Your task to perform on an android device: Open the map Image 0: 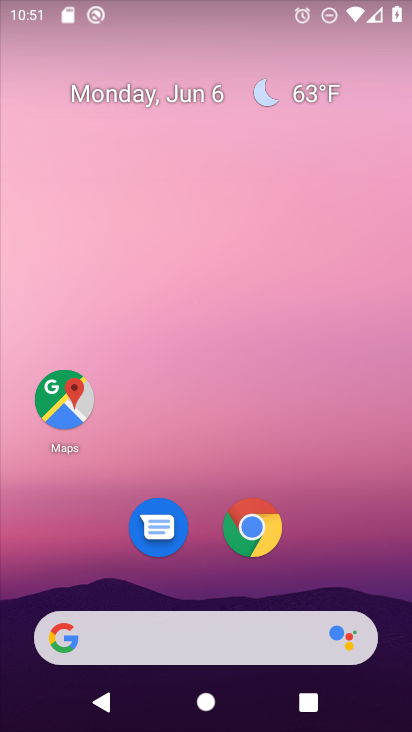
Step 0: drag from (362, 529) to (384, 70)
Your task to perform on an android device: Open the map Image 1: 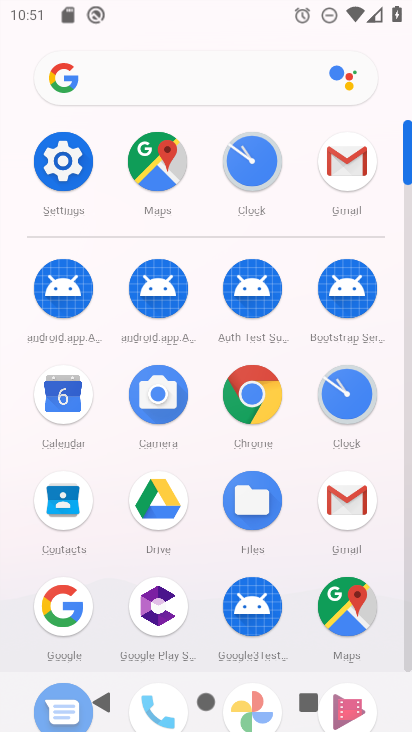
Step 1: click (361, 613)
Your task to perform on an android device: Open the map Image 2: 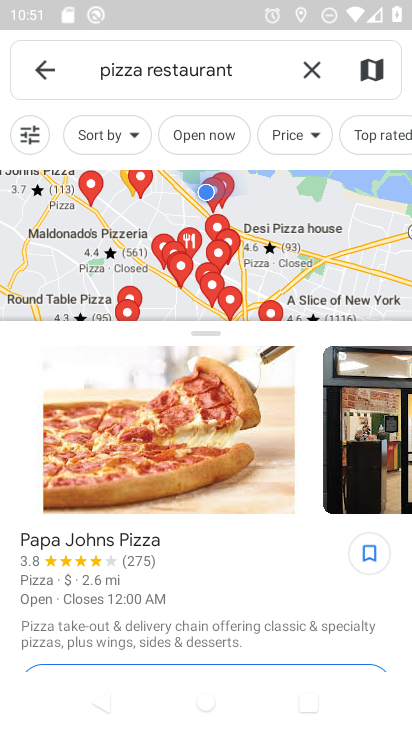
Step 2: task complete